Your task to perform on an android device: turn pop-ups on in chrome Image 0: 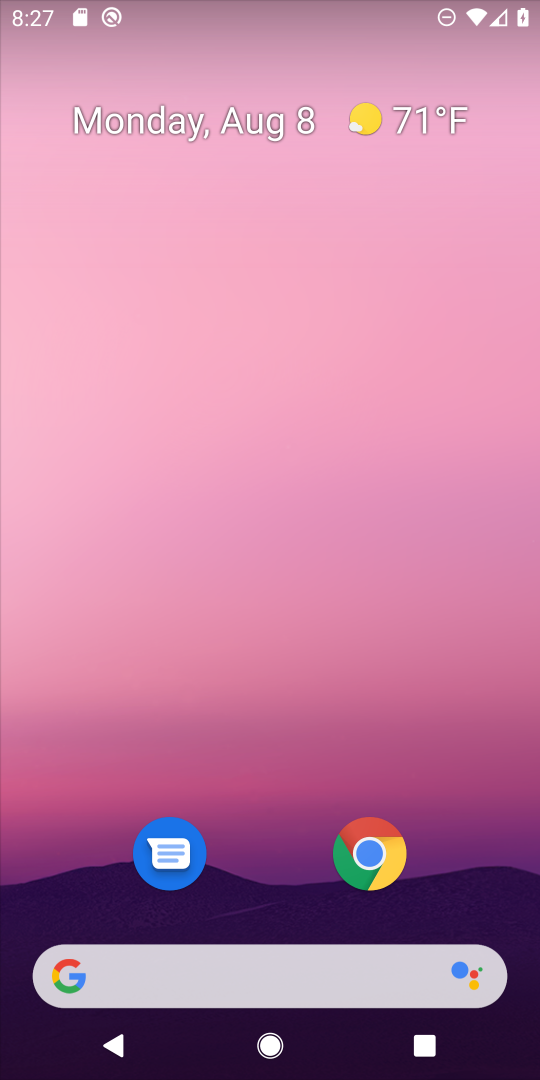
Step 0: click (339, 858)
Your task to perform on an android device: turn pop-ups on in chrome Image 1: 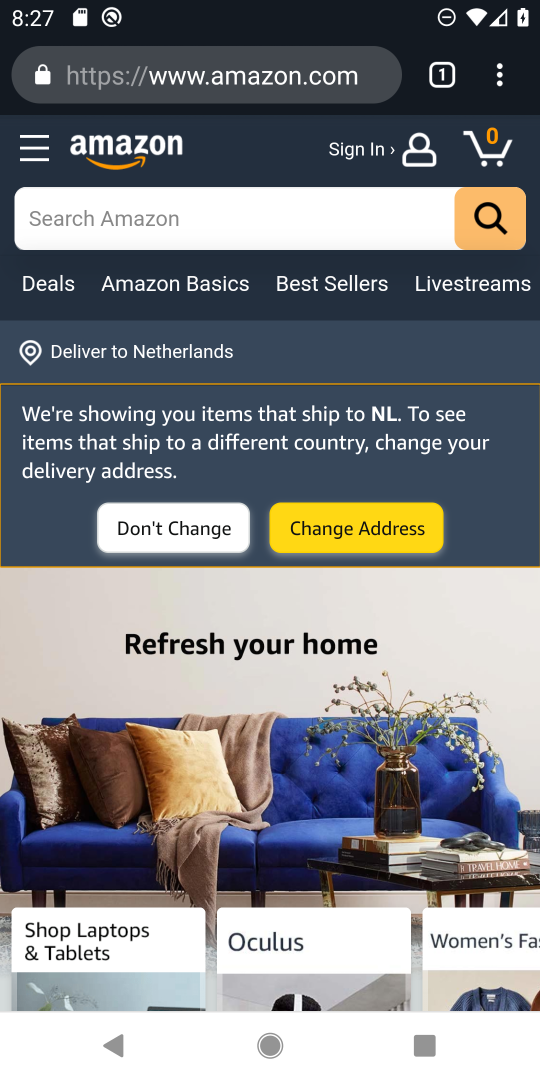
Step 1: click (497, 82)
Your task to perform on an android device: turn pop-ups on in chrome Image 2: 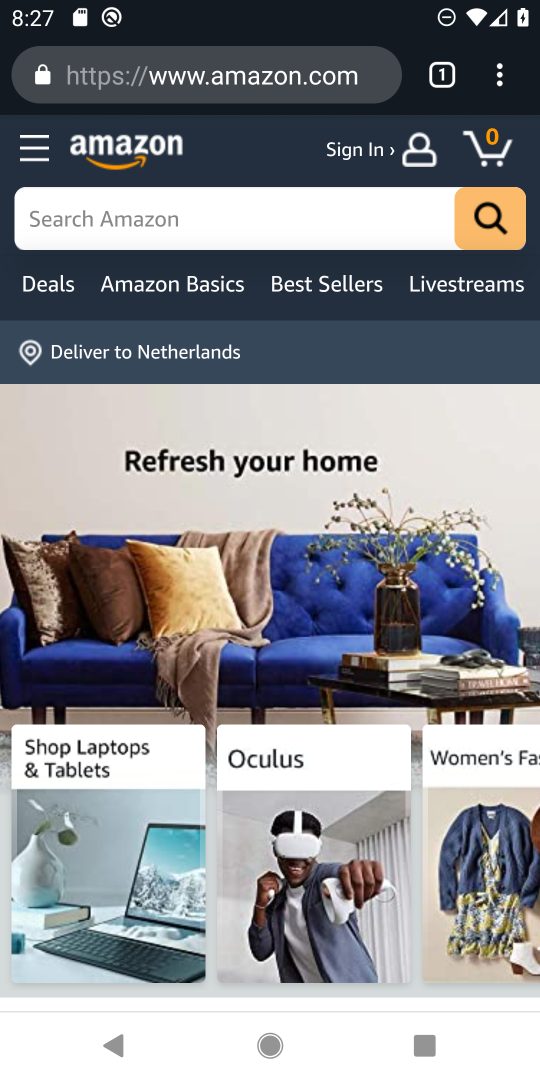
Step 2: click (503, 90)
Your task to perform on an android device: turn pop-ups on in chrome Image 3: 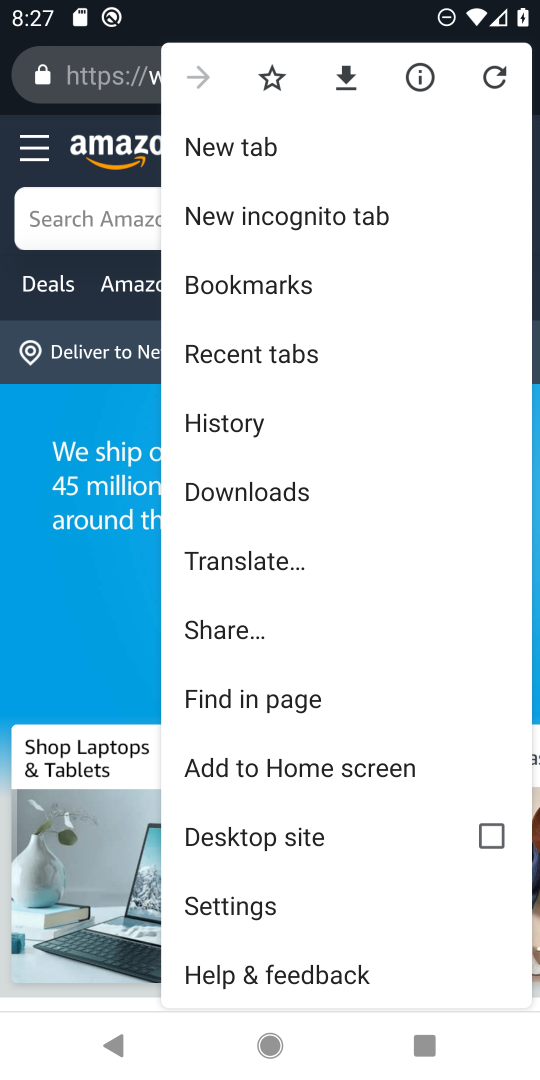
Step 3: click (205, 906)
Your task to perform on an android device: turn pop-ups on in chrome Image 4: 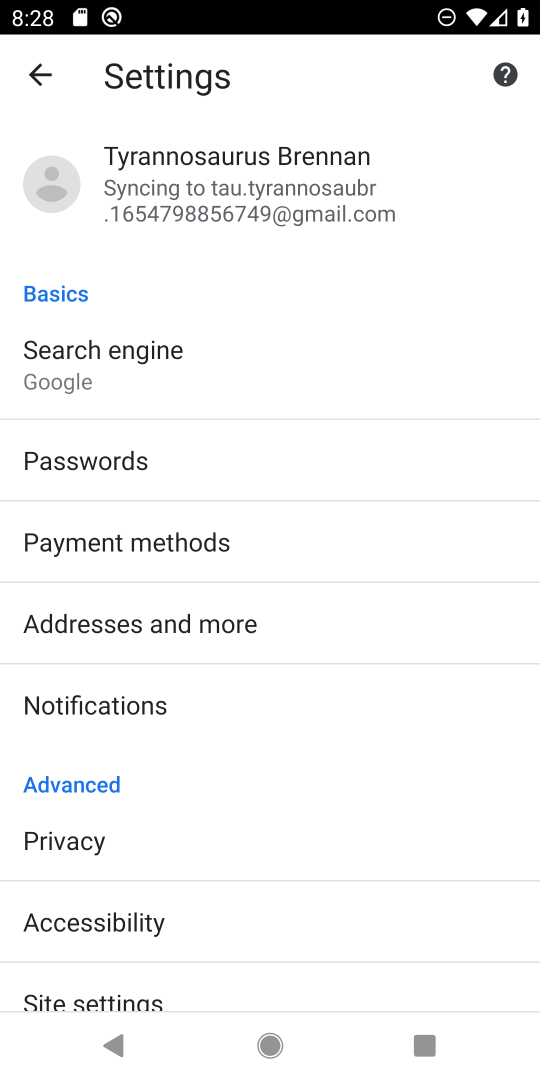
Step 4: drag from (224, 895) to (169, 448)
Your task to perform on an android device: turn pop-ups on in chrome Image 5: 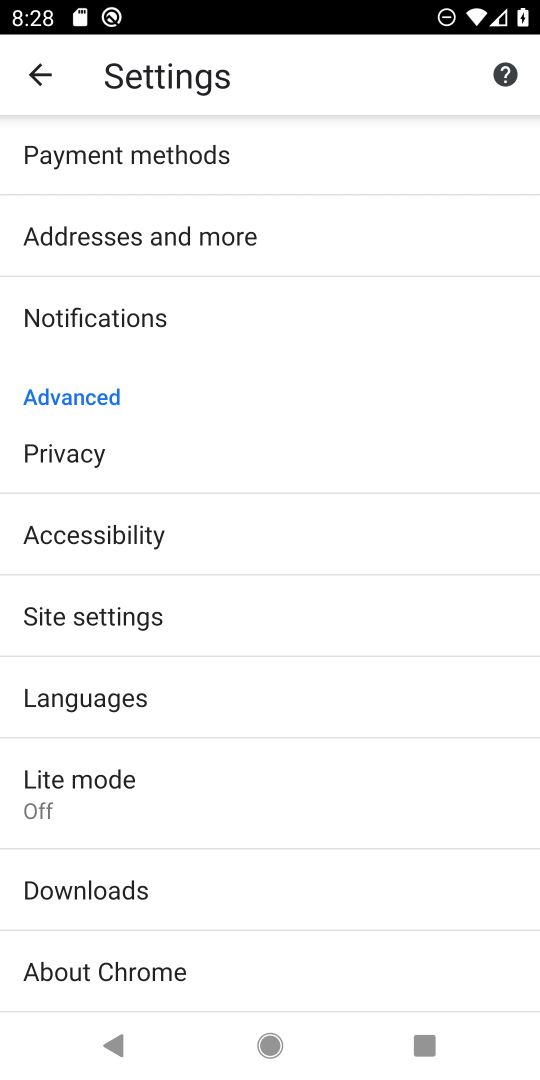
Step 5: click (99, 627)
Your task to perform on an android device: turn pop-ups on in chrome Image 6: 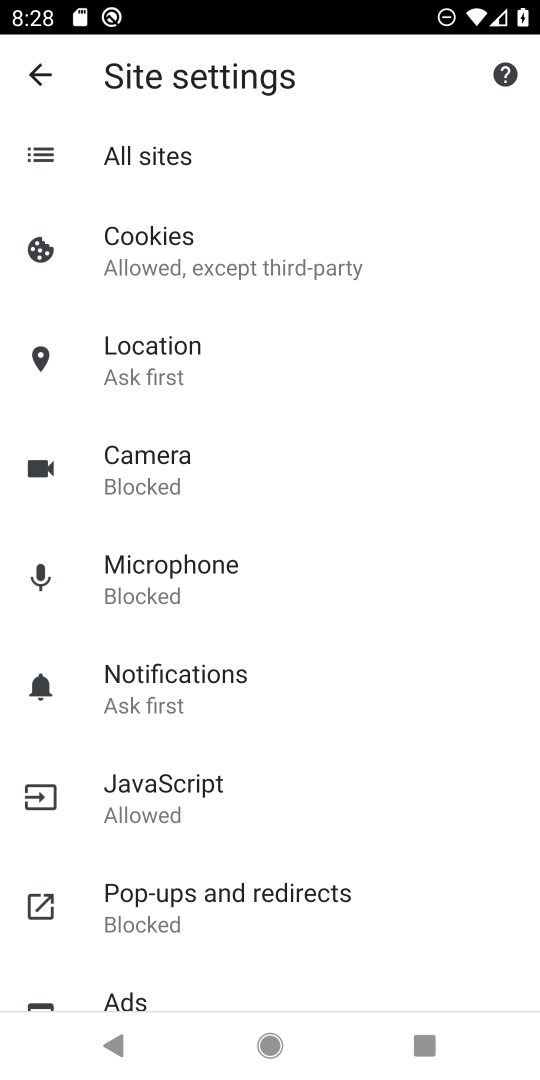
Step 6: click (202, 890)
Your task to perform on an android device: turn pop-ups on in chrome Image 7: 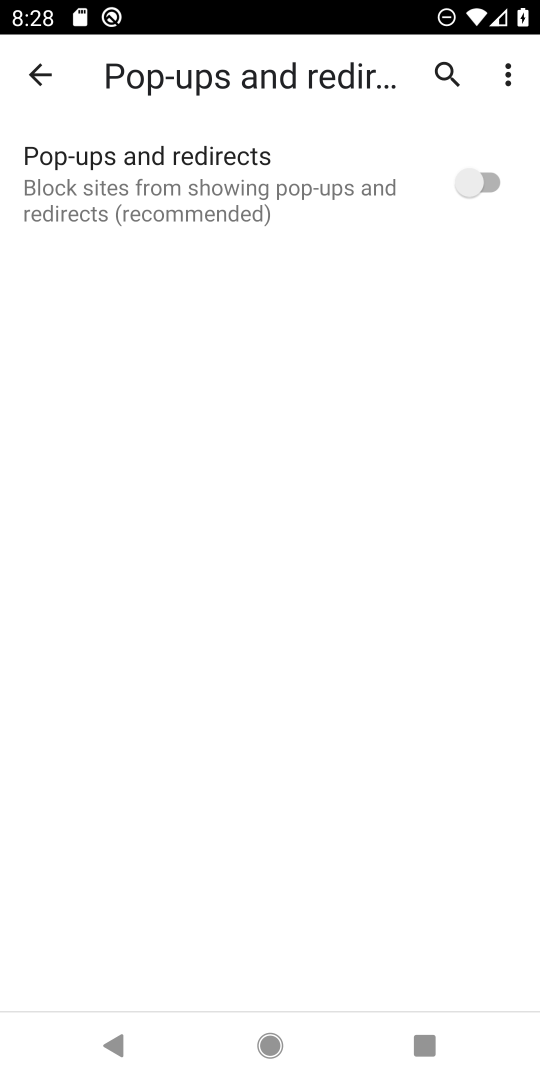
Step 7: click (476, 189)
Your task to perform on an android device: turn pop-ups on in chrome Image 8: 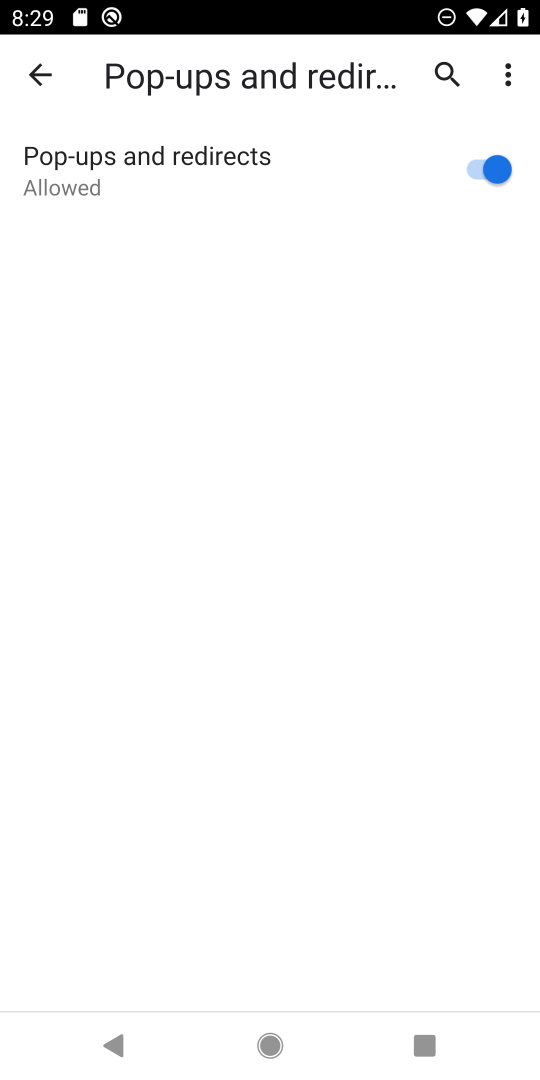
Step 8: task complete